Your task to perform on an android device: turn off sleep mode Image 0: 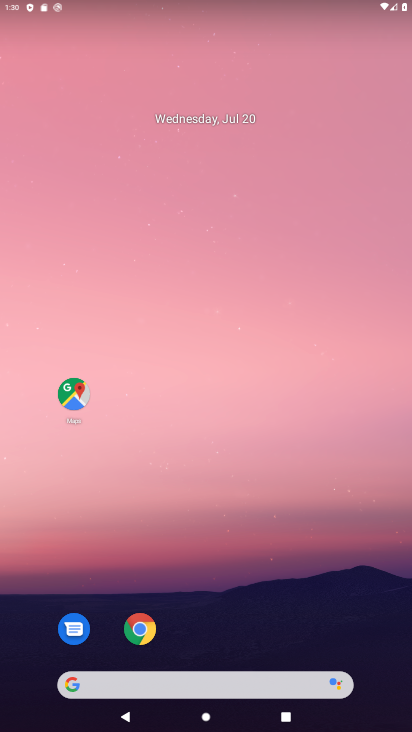
Step 0: drag from (184, 653) to (240, 176)
Your task to perform on an android device: turn off sleep mode Image 1: 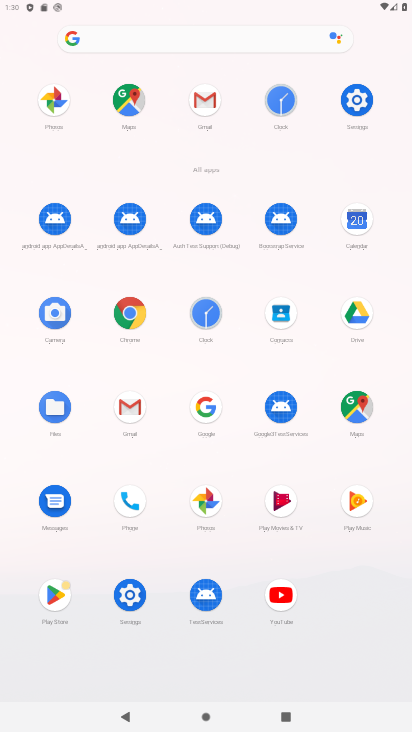
Step 1: click (135, 593)
Your task to perform on an android device: turn off sleep mode Image 2: 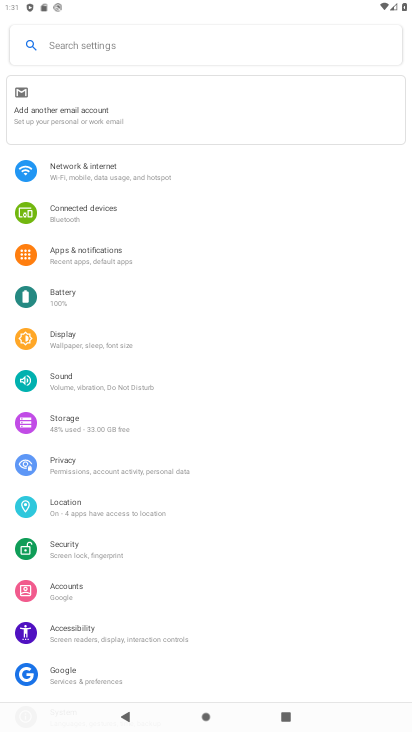
Step 2: click (66, 341)
Your task to perform on an android device: turn off sleep mode Image 3: 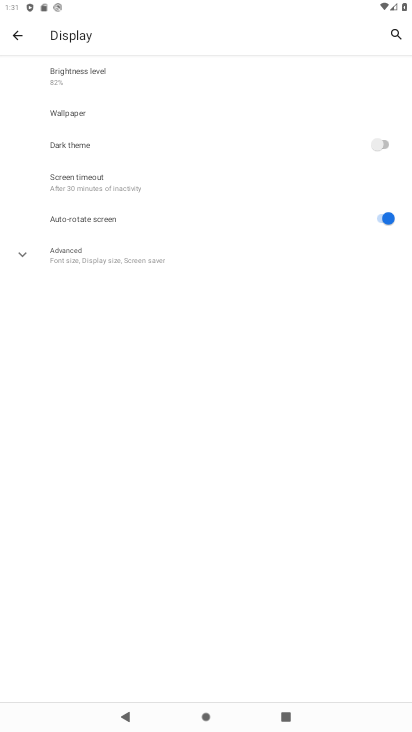
Step 3: click (128, 262)
Your task to perform on an android device: turn off sleep mode Image 4: 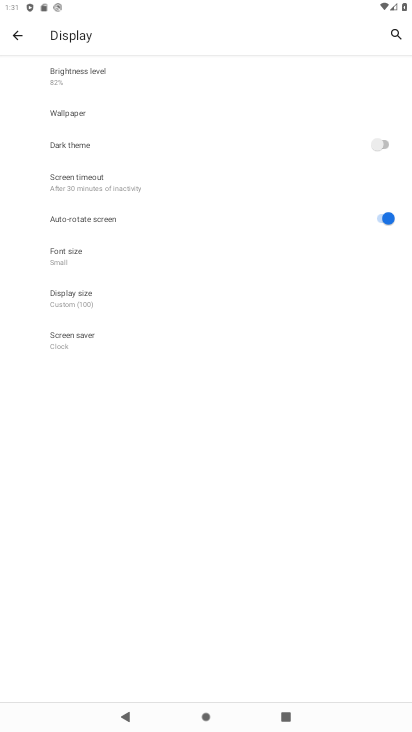
Step 4: task complete